Your task to perform on an android device: open sync settings in chrome Image 0: 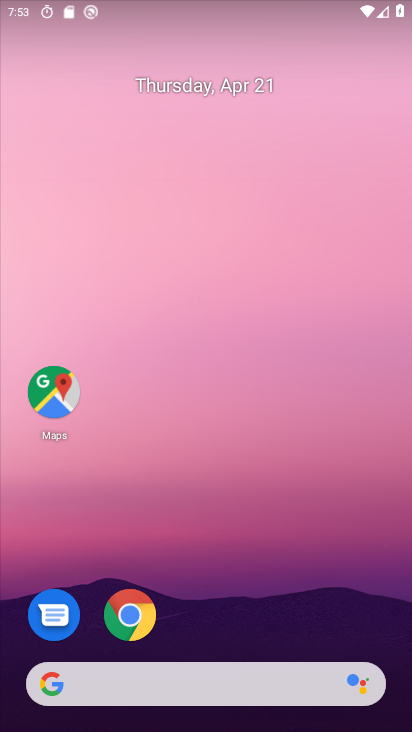
Step 0: drag from (196, 683) to (303, 133)
Your task to perform on an android device: open sync settings in chrome Image 1: 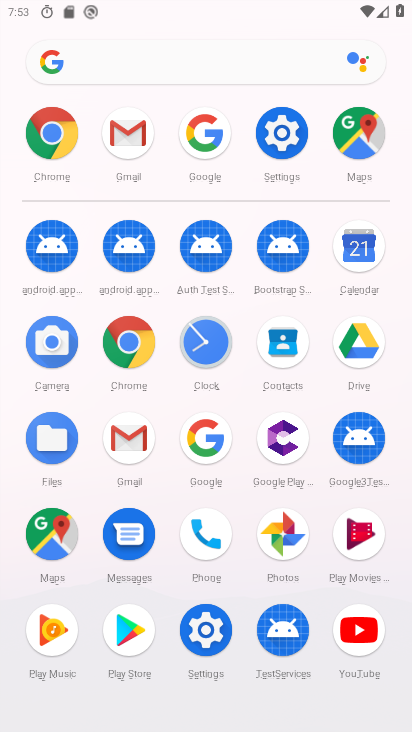
Step 1: click (61, 140)
Your task to perform on an android device: open sync settings in chrome Image 2: 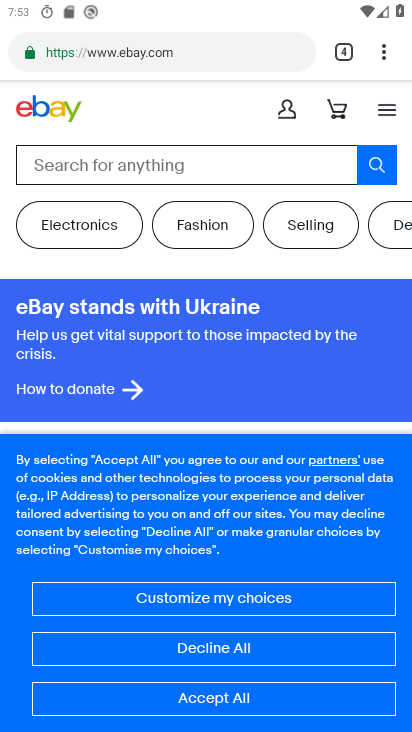
Step 2: click (378, 62)
Your task to perform on an android device: open sync settings in chrome Image 3: 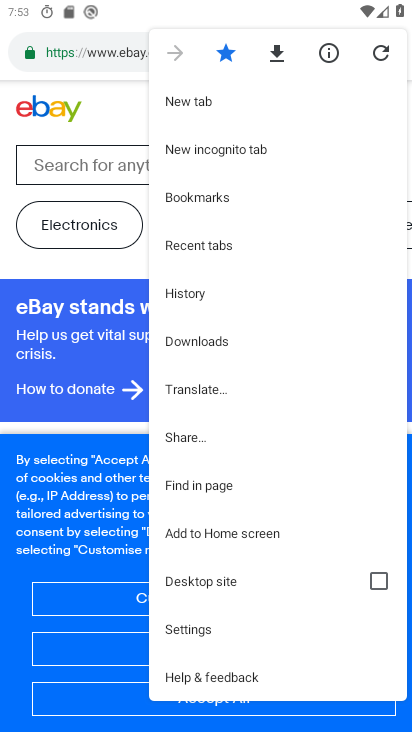
Step 3: click (181, 631)
Your task to perform on an android device: open sync settings in chrome Image 4: 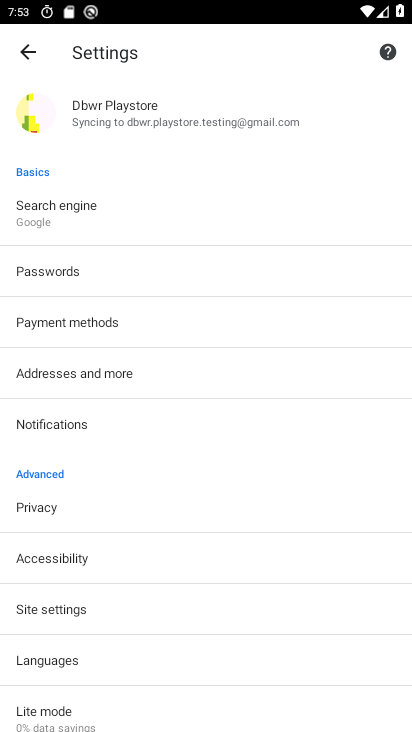
Step 4: click (152, 125)
Your task to perform on an android device: open sync settings in chrome Image 5: 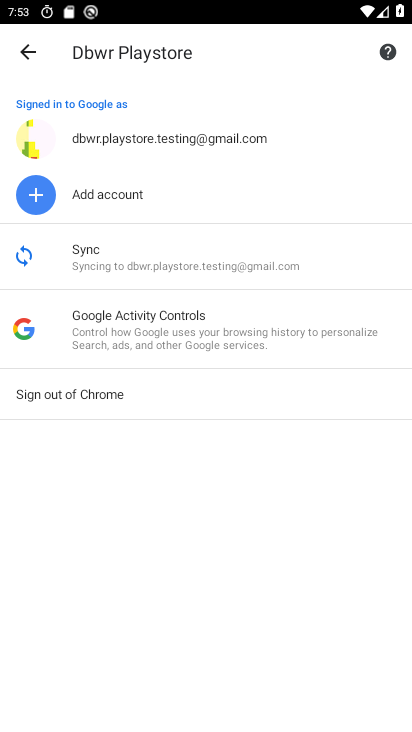
Step 5: click (86, 247)
Your task to perform on an android device: open sync settings in chrome Image 6: 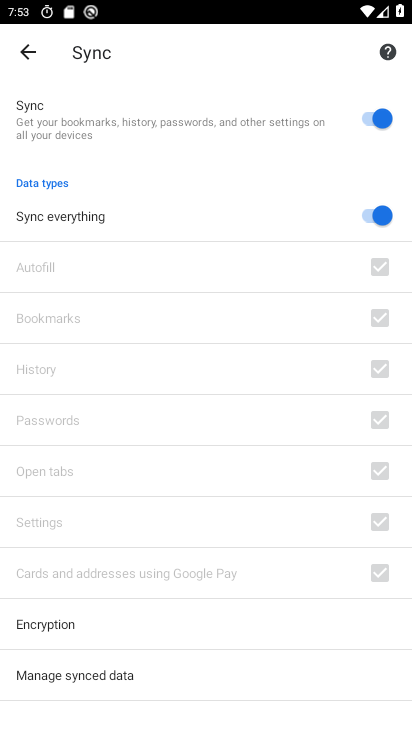
Step 6: task complete